Your task to perform on an android device: set the timer Image 0: 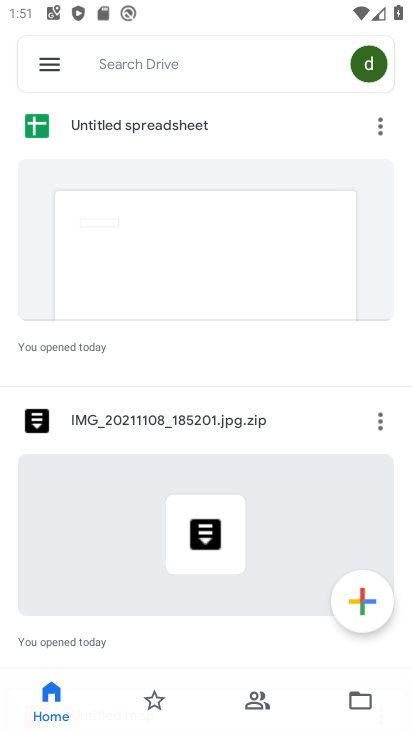
Step 0: press home button
Your task to perform on an android device: set the timer Image 1: 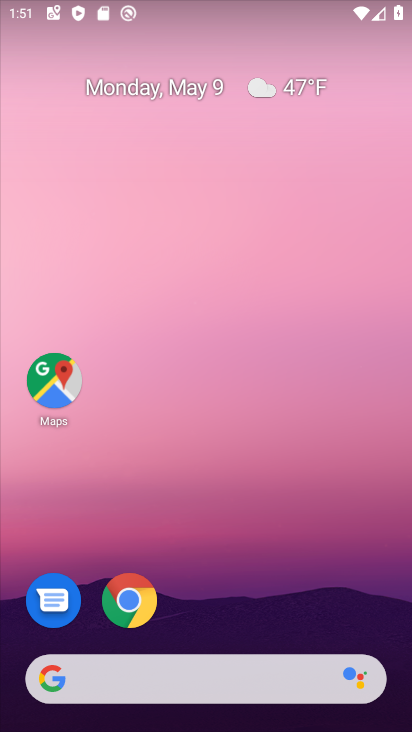
Step 1: drag from (218, 631) to (342, 48)
Your task to perform on an android device: set the timer Image 2: 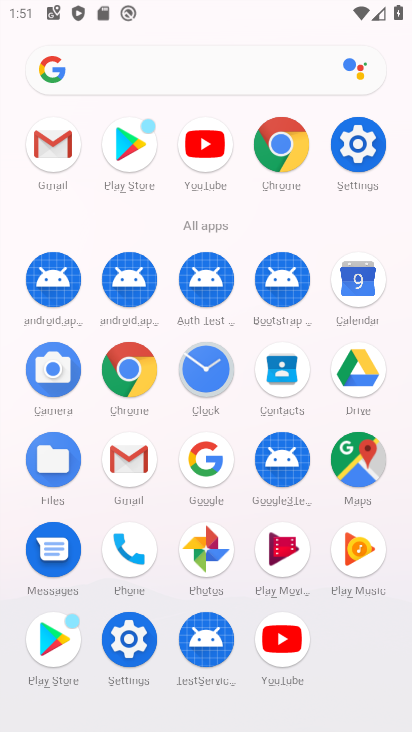
Step 2: click (216, 355)
Your task to perform on an android device: set the timer Image 3: 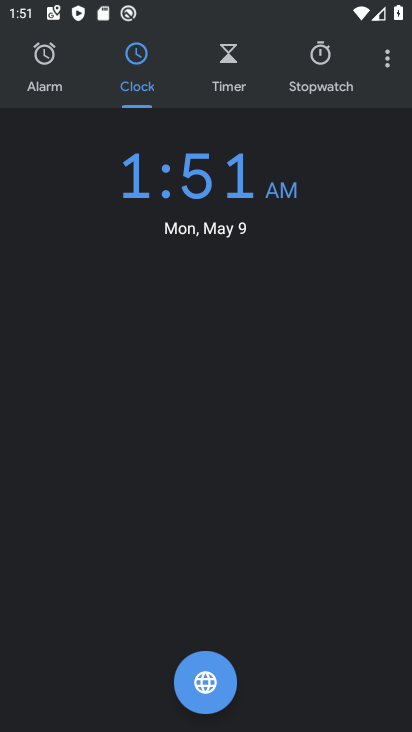
Step 3: click (219, 89)
Your task to perform on an android device: set the timer Image 4: 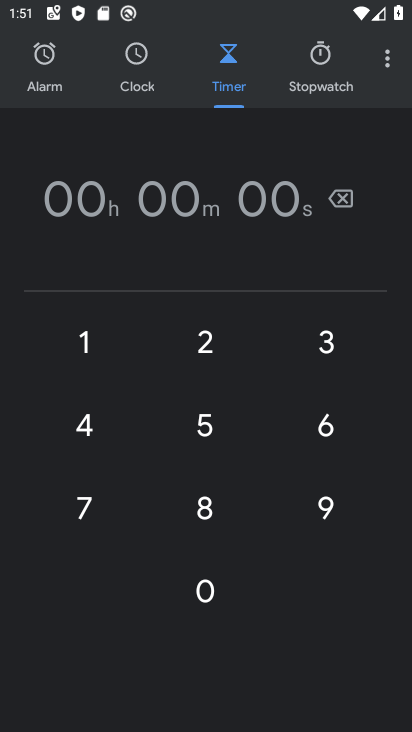
Step 4: click (203, 430)
Your task to perform on an android device: set the timer Image 5: 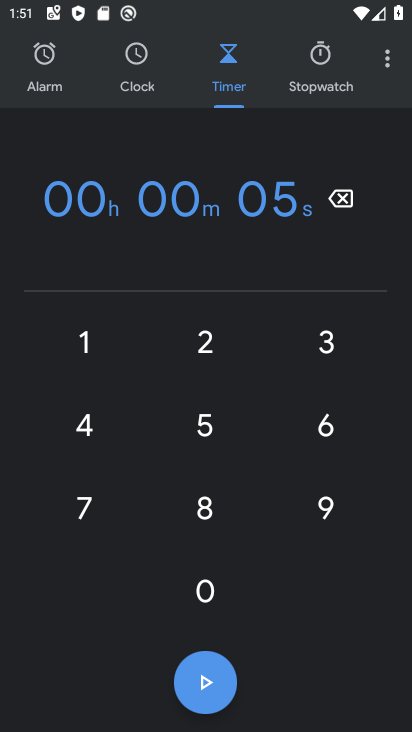
Step 5: click (219, 690)
Your task to perform on an android device: set the timer Image 6: 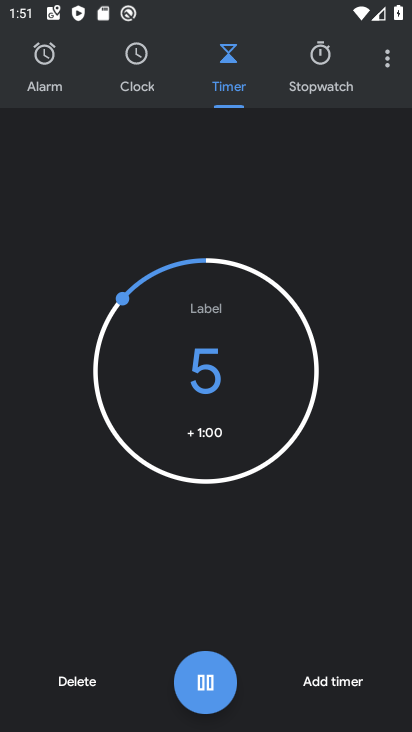
Step 6: task complete